Your task to perform on an android device: When is my next meeting? Image 0: 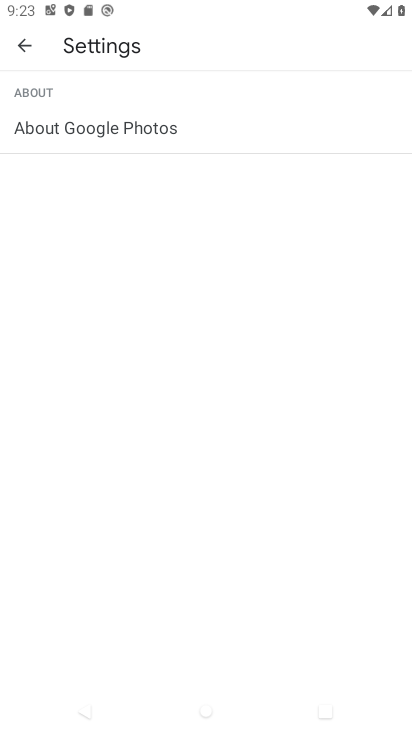
Step 0: press home button
Your task to perform on an android device: When is my next meeting? Image 1: 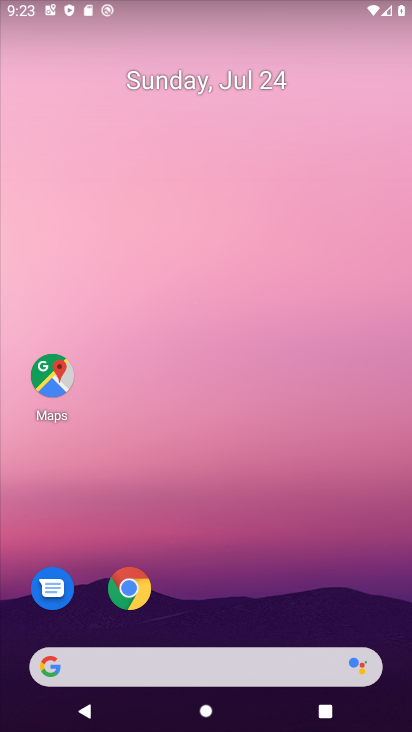
Step 1: drag from (243, 640) to (234, 55)
Your task to perform on an android device: When is my next meeting? Image 2: 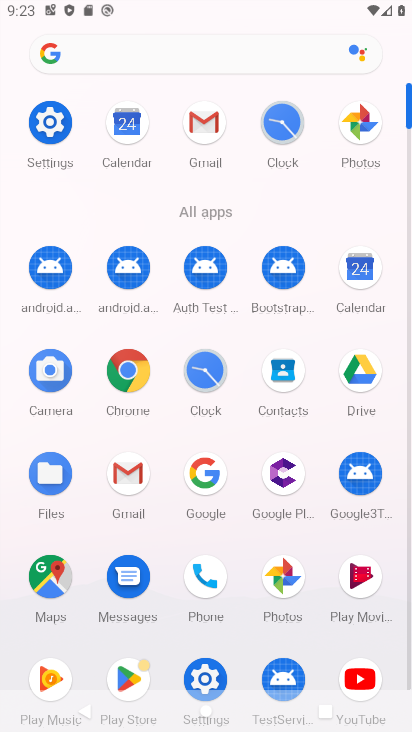
Step 2: click (128, 127)
Your task to perform on an android device: When is my next meeting? Image 3: 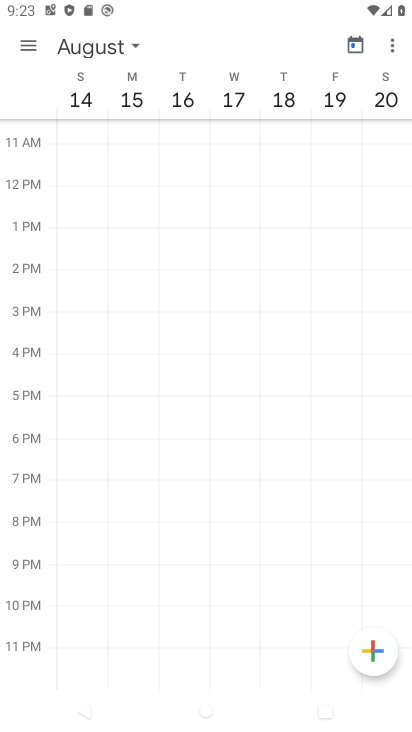
Step 3: click (362, 45)
Your task to perform on an android device: When is my next meeting? Image 4: 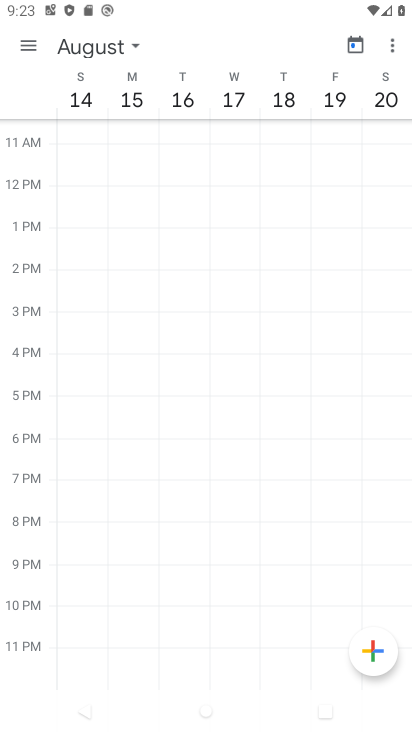
Step 4: click (356, 45)
Your task to perform on an android device: When is my next meeting? Image 5: 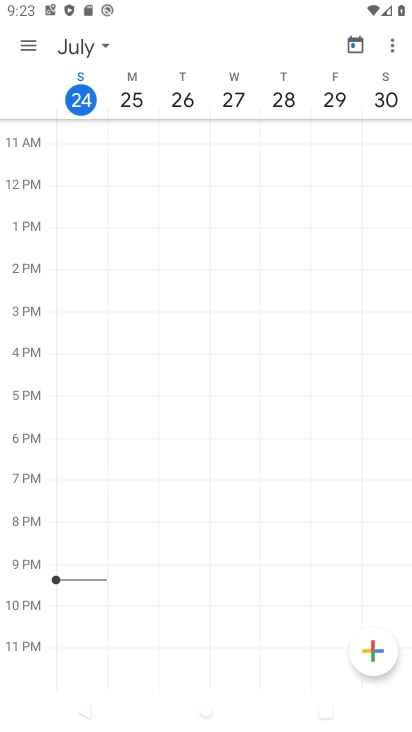
Step 5: click (35, 48)
Your task to perform on an android device: When is my next meeting? Image 6: 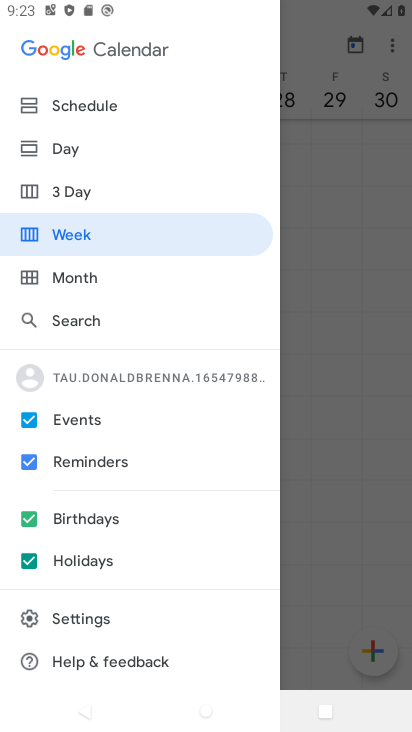
Step 6: click (23, 460)
Your task to perform on an android device: When is my next meeting? Image 7: 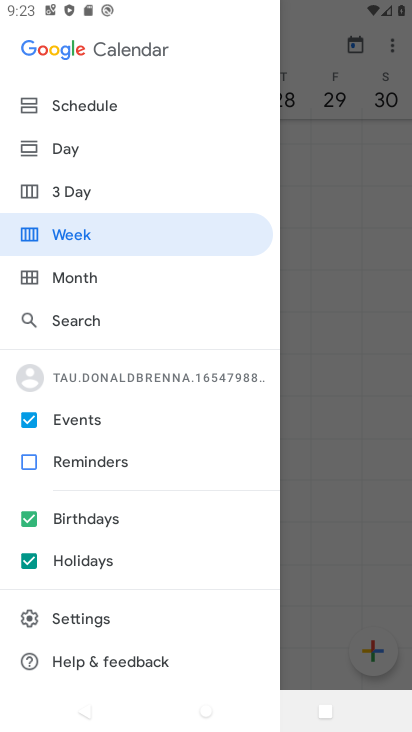
Step 7: click (27, 469)
Your task to perform on an android device: When is my next meeting? Image 8: 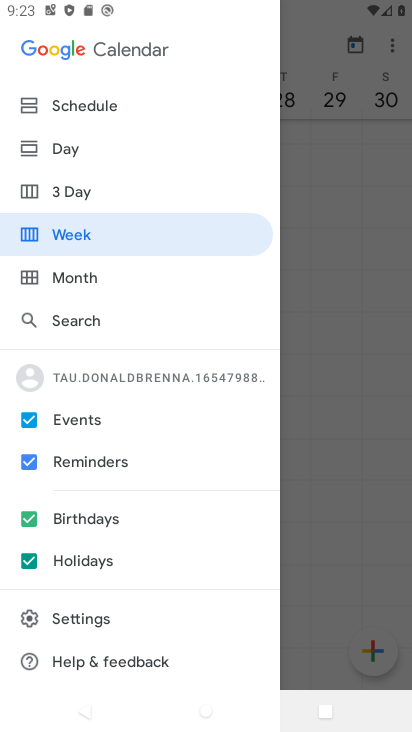
Step 8: click (34, 103)
Your task to perform on an android device: When is my next meeting? Image 9: 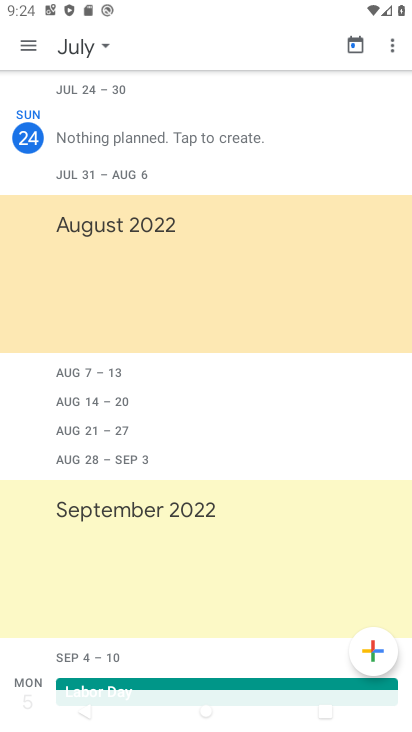
Step 9: click (23, 46)
Your task to perform on an android device: When is my next meeting? Image 10: 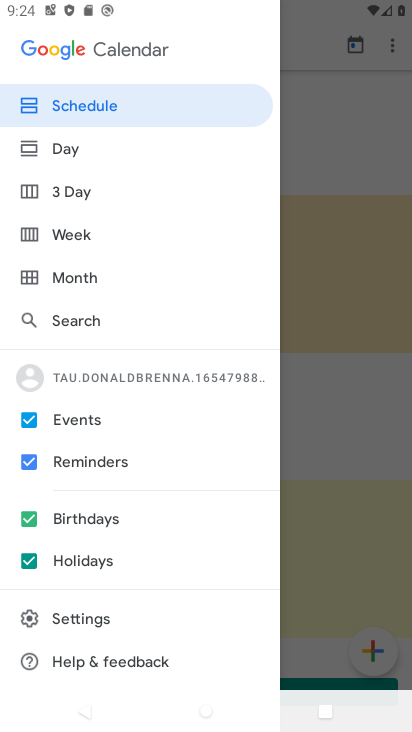
Step 10: click (28, 562)
Your task to perform on an android device: When is my next meeting? Image 11: 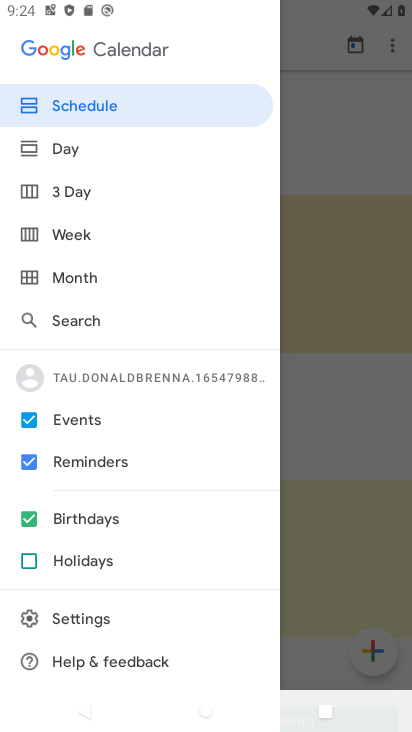
Step 11: click (33, 517)
Your task to perform on an android device: When is my next meeting? Image 12: 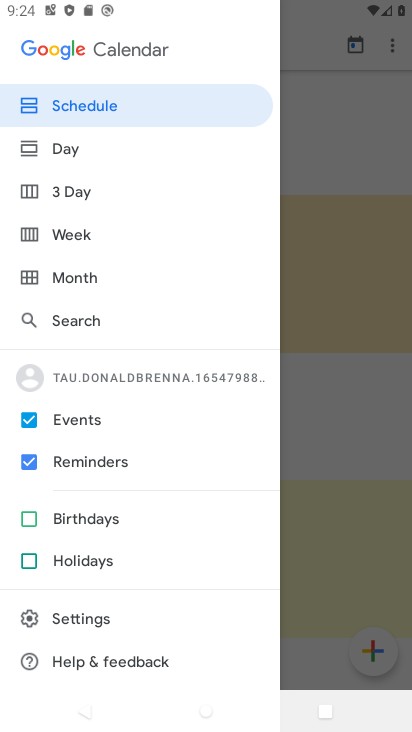
Step 12: click (28, 453)
Your task to perform on an android device: When is my next meeting? Image 13: 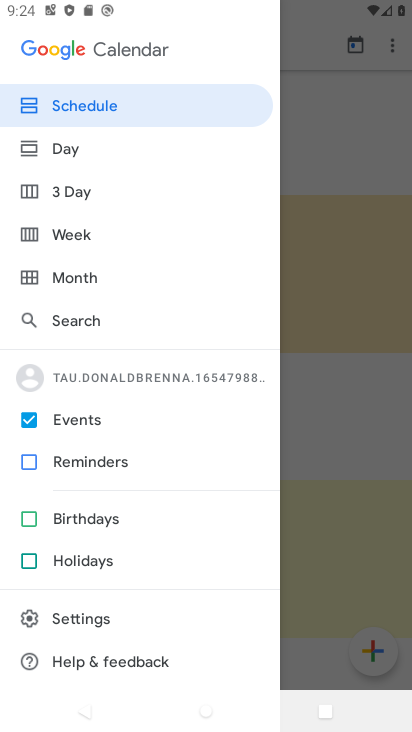
Step 13: click (86, 111)
Your task to perform on an android device: When is my next meeting? Image 14: 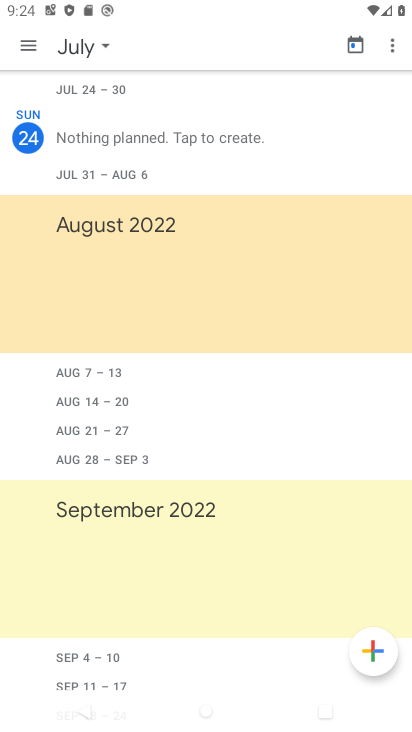
Step 14: drag from (96, 257) to (106, 132)
Your task to perform on an android device: When is my next meeting? Image 15: 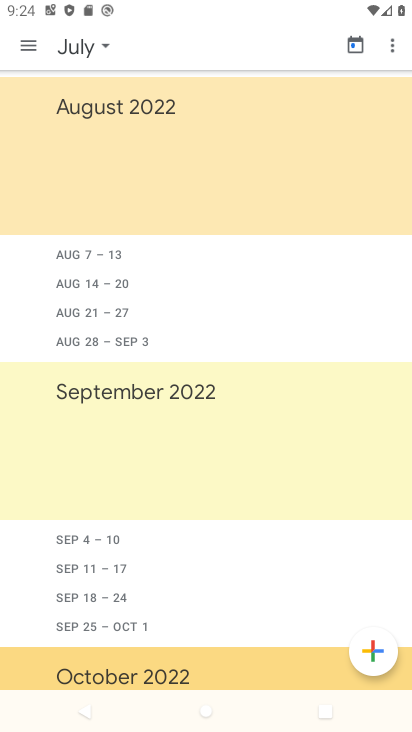
Step 15: drag from (83, 417) to (102, 222)
Your task to perform on an android device: When is my next meeting? Image 16: 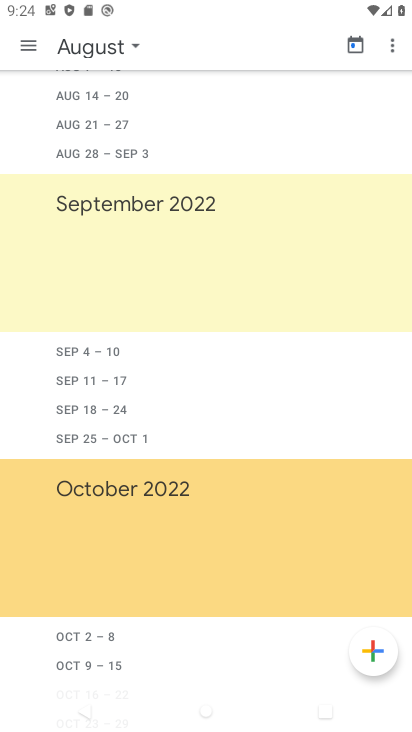
Step 16: drag from (102, 222) to (89, 622)
Your task to perform on an android device: When is my next meeting? Image 17: 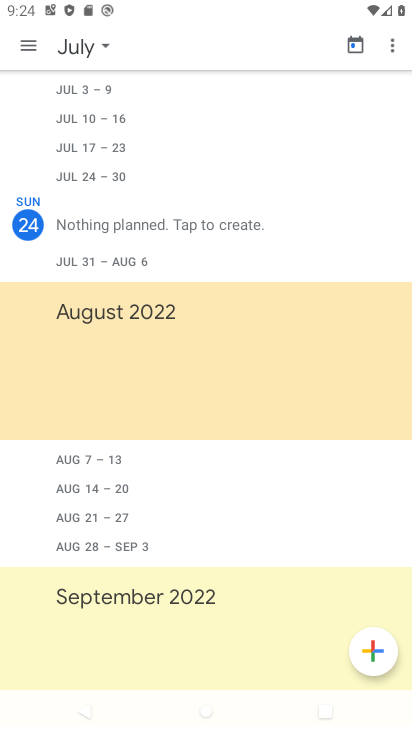
Step 17: drag from (151, 319) to (133, 578)
Your task to perform on an android device: When is my next meeting? Image 18: 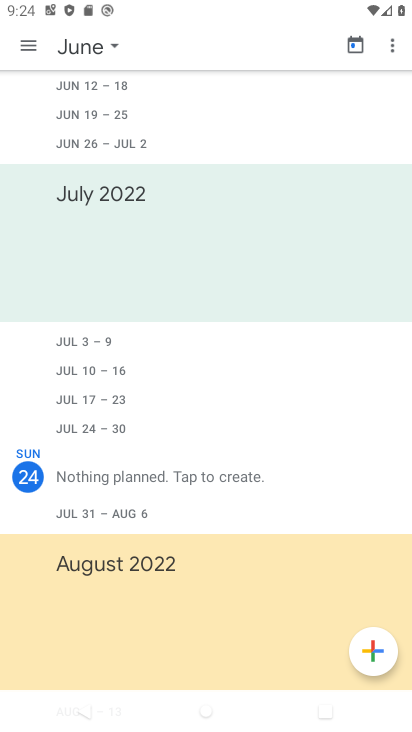
Step 18: click (133, 479)
Your task to perform on an android device: When is my next meeting? Image 19: 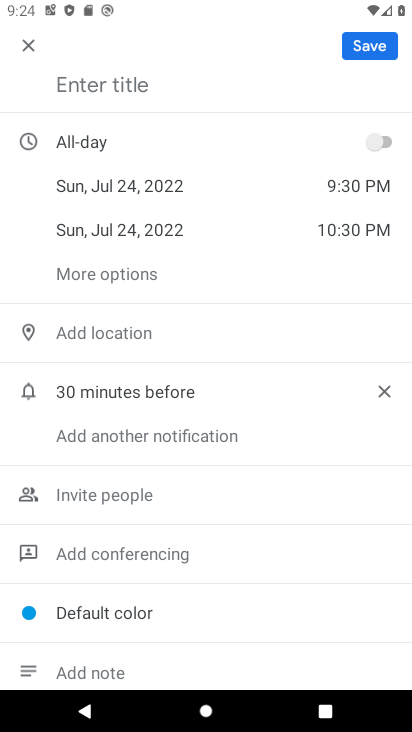
Step 19: click (35, 46)
Your task to perform on an android device: When is my next meeting? Image 20: 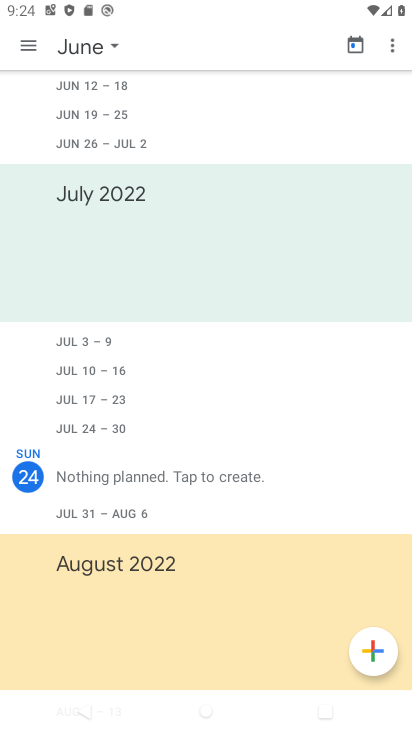
Step 20: drag from (115, 492) to (109, 185)
Your task to perform on an android device: When is my next meeting? Image 21: 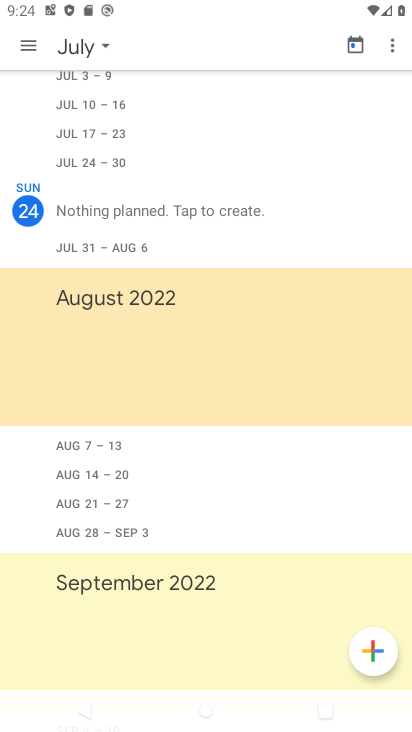
Step 21: click (104, 441)
Your task to perform on an android device: When is my next meeting? Image 22: 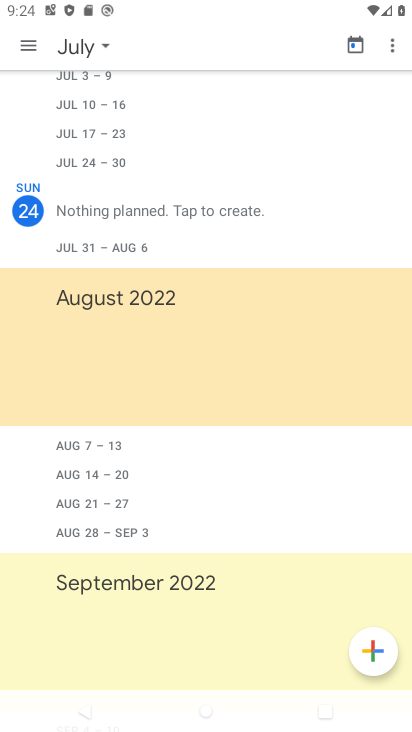
Step 22: task complete